Your task to perform on an android device: Open Chrome and go to the settings page Image 0: 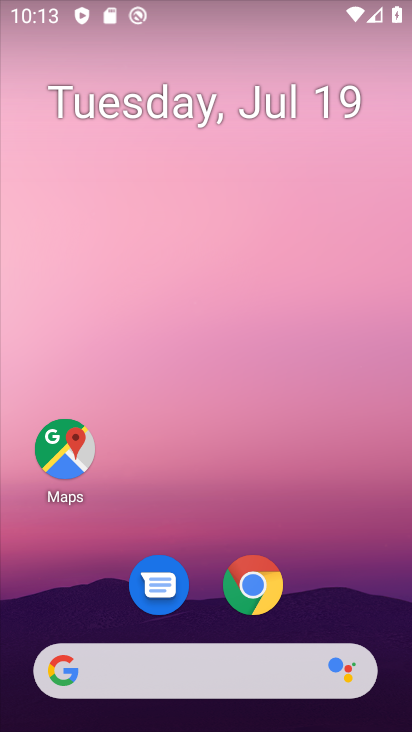
Step 0: click (265, 592)
Your task to perform on an android device: Open Chrome and go to the settings page Image 1: 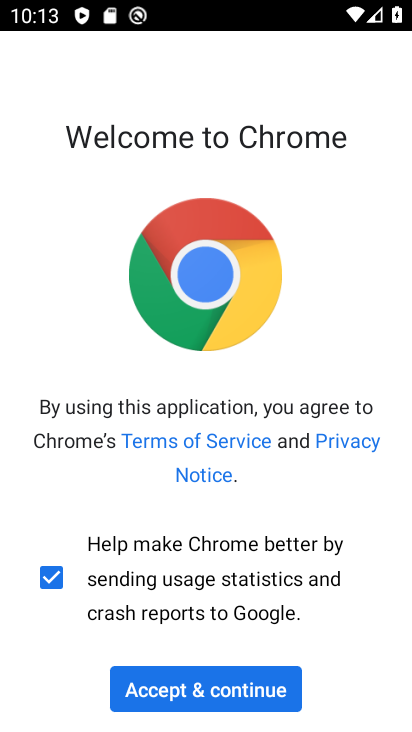
Step 1: click (255, 680)
Your task to perform on an android device: Open Chrome and go to the settings page Image 2: 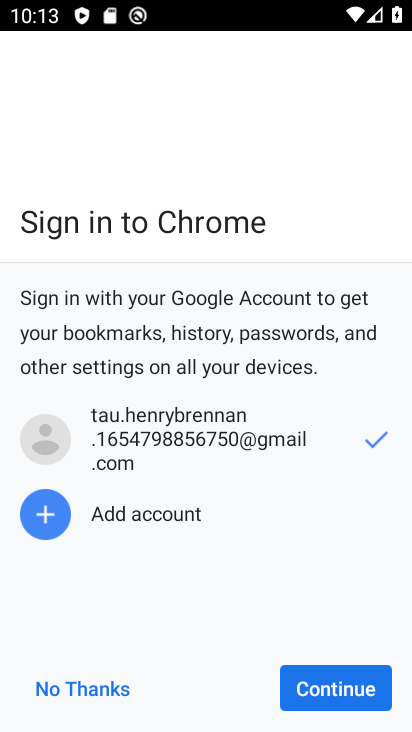
Step 2: click (318, 680)
Your task to perform on an android device: Open Chrome and go to the settings page Image 3: 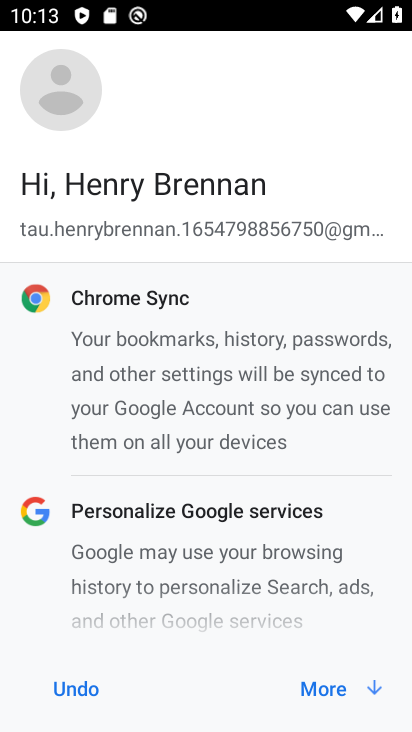
Step 3: click (318, 680)
Your task to perform on an android device: Open Chrome and go to the settings page Image 4: 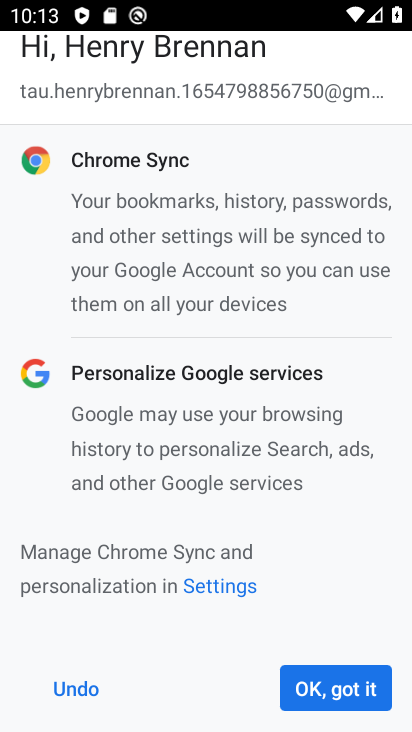
Step 4: click (318, 680)
Your task to perform on an android device: Open Chrome and go to the settings page Image 5: 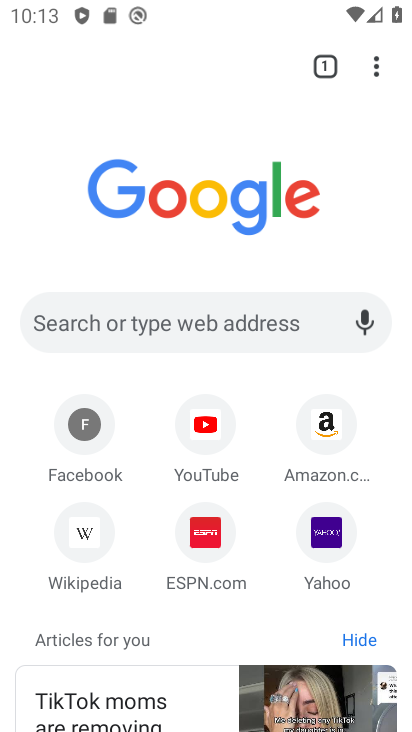
Step 5: task complete